Your task to perform on an android device: Open Amazon Image 0: 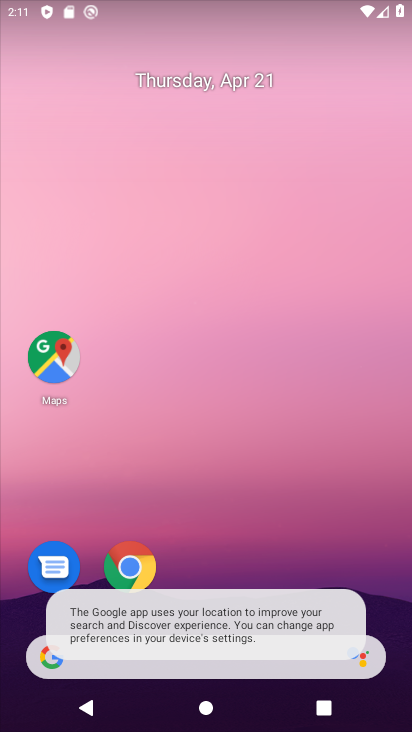
Step 0: drag from (305, 556) to (303, 91)
Your task to perform on an android device: Open Amazon Image 1: 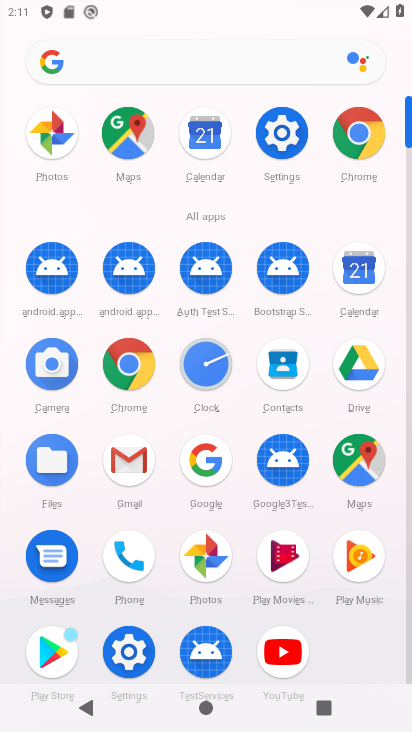
Step 1: click (128, 361)
Your task to perform on an android device: Open Amazon Image 2: 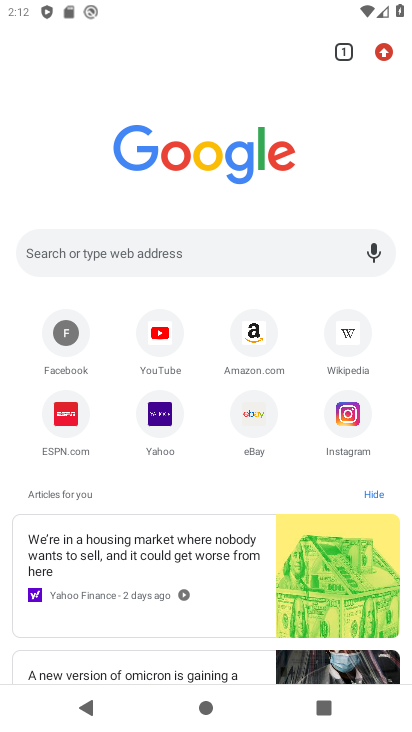
Step 2: click (246, 331)
Your task to perform on an android device: Open Amazon Image 3: 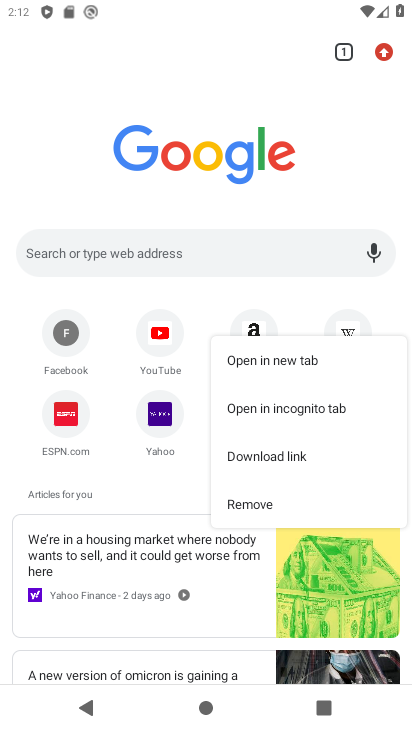
Step 3: click (252, 330)
Your task to perform on an android device: Open Amazon Image 4: 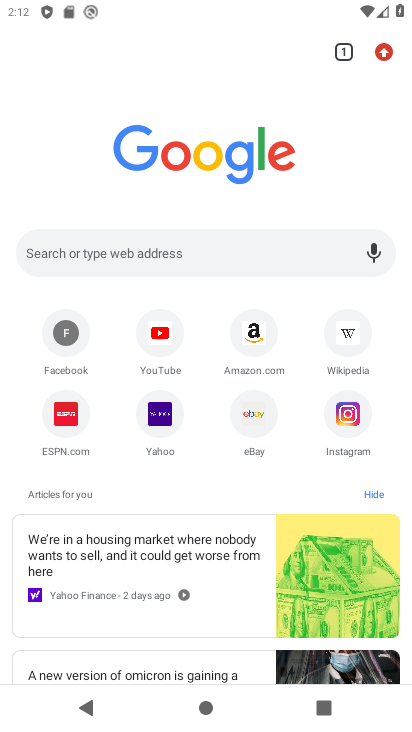
Step 4: click (251, 333)
Your task to perform on an android device: Open Amazon Image 5: 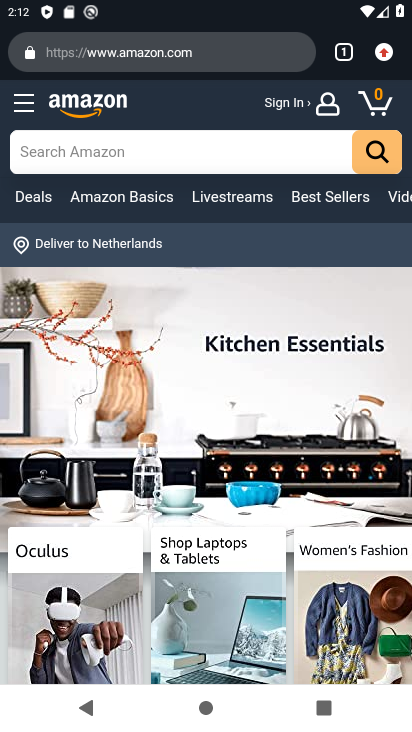
Step 5: task complete